Your task to perform on an android device: choose inbox layout in the gmail app Image 0: 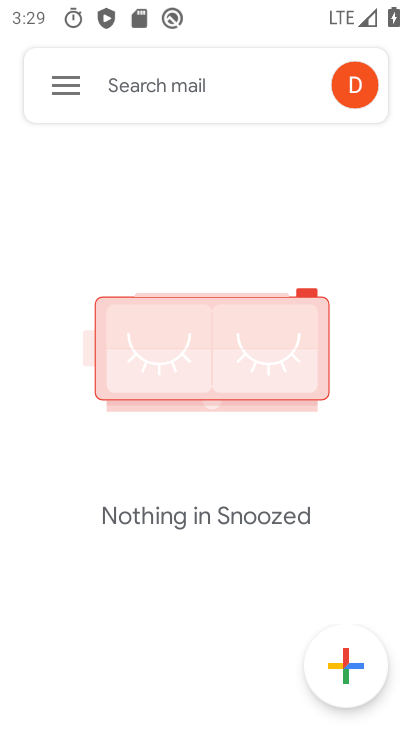
Step 0: press home button
Your task to perform on an android device: choose inbox layout in the gmail app Image 1: 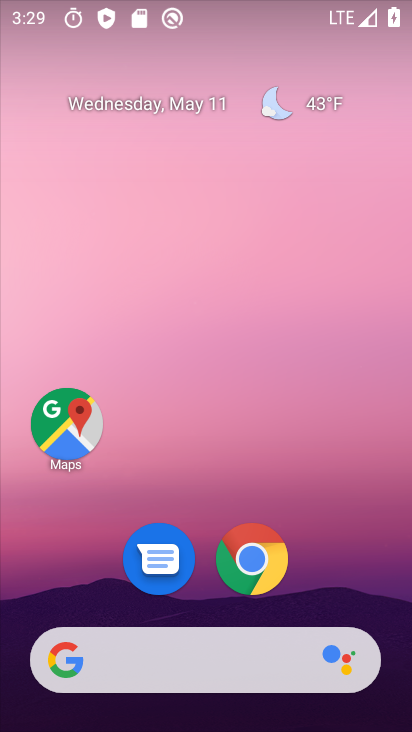
Step 1: drag from (325, 492) to (233, 50)
Your task to perform on an android device: choose inbox layout in the gmail app Image 2: 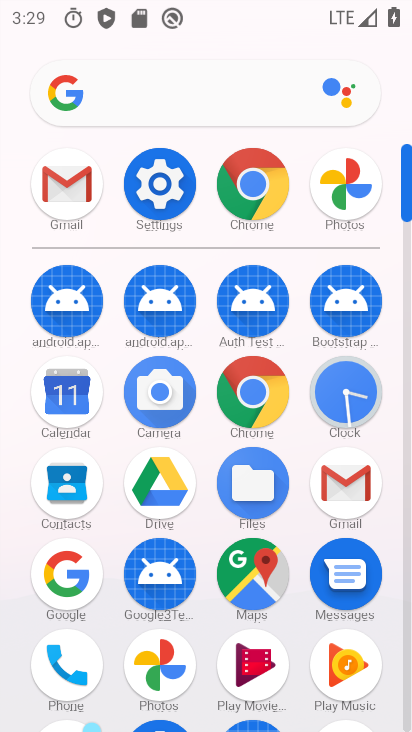
Step 2: click (332, 476)
Your task to perform on an android device: choose inbox layout in the gmail app Image 3: 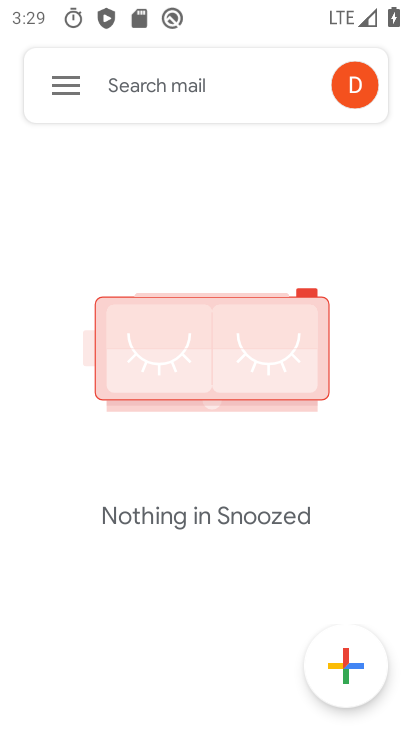
Step 3: click (61, 81)
Your task to perform on an android device: choose inbox layout in the gmail app Image 4: 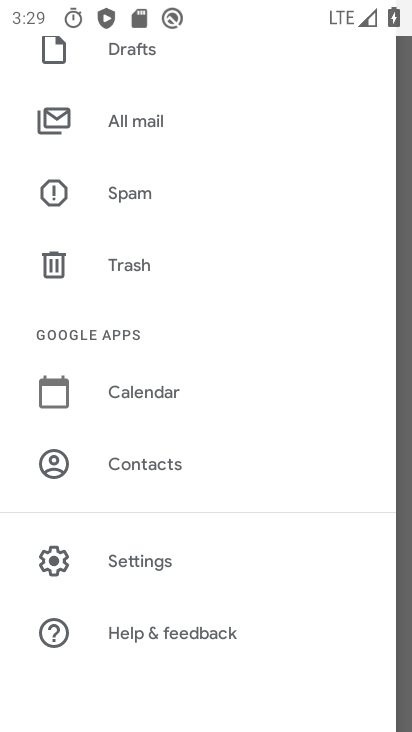
Step 4: click (184, 553)
Your task to perform on an android device: choose inbox layout in the gmail app Image 5: 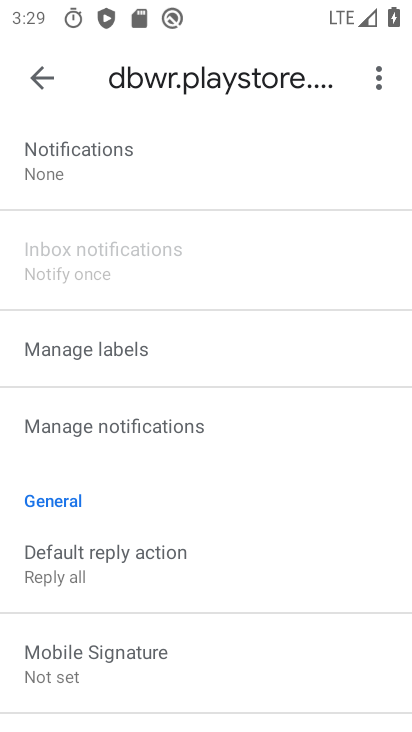
Step 5: drag from (203, 656) to (212, 265)
Your task to perform on an android device: choose inbox layout in the gmail app Image 6: 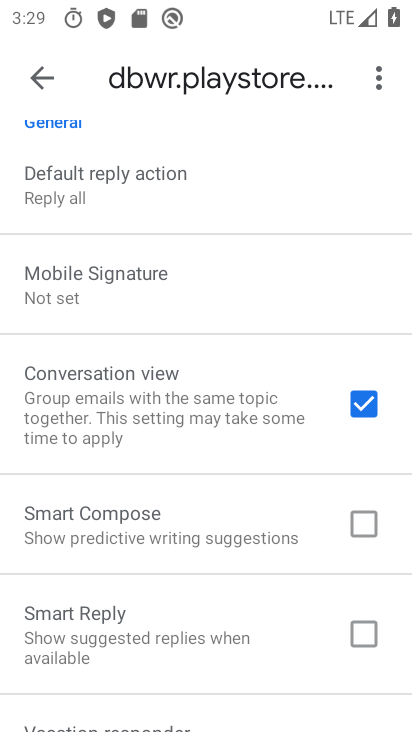
Step 6: drag from (196, 141) to (234, 675)
Your task to perform on an android device: choose inbox layout in the gmail app Image 7: 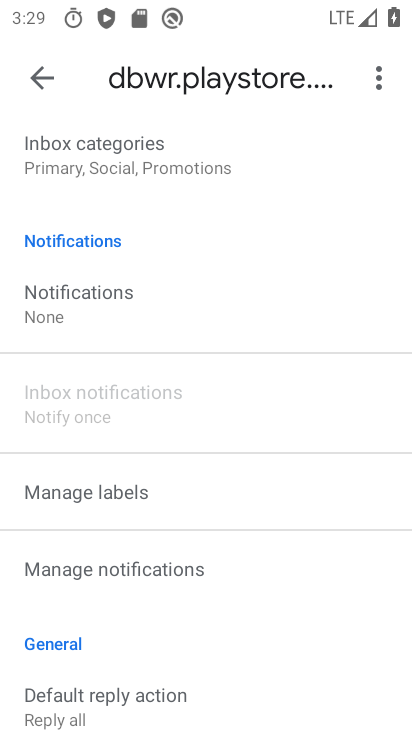
Step 7: drag from (171, 213) to (207, 598)
Your task to perform on an android device: choose inbox layout in the gmail app Image 8: 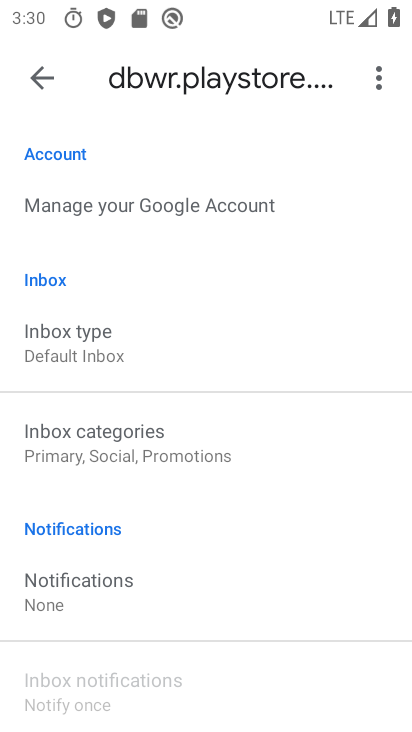
Step 8: click (132, 340)
Your task to perform on an android device: choose inbox layout in the gmail app Image 9: 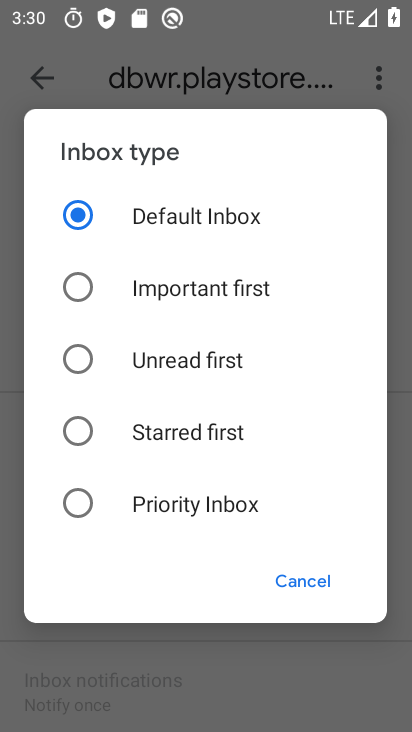
Step 9: click (133, 509)
Your task to perform on an android device: choose inbox layout in the gmail app Image 10: 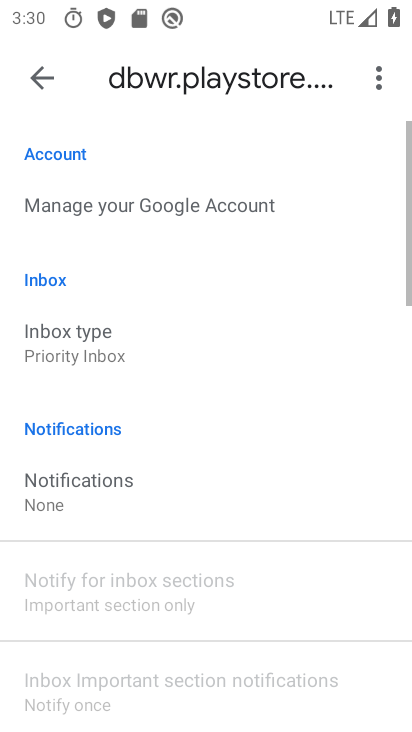
Step 10: task complete